Your task to perform on an android device: Open Google Maps and go to "Timeline" Image 0: 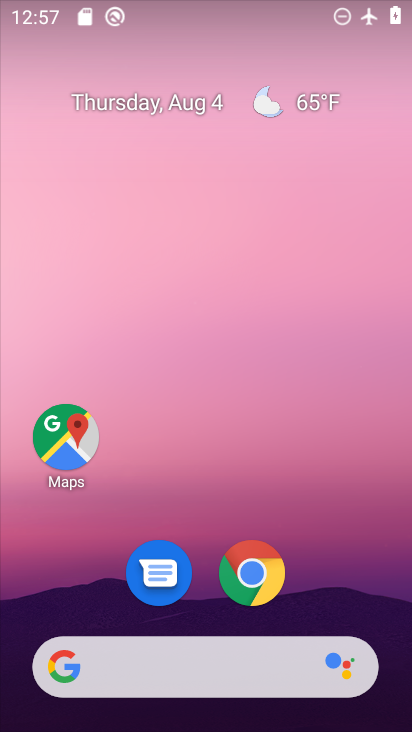
Step 0: click (371, 53)
Your task to perform on an android device: Open Google Maps and go to "Timeline" Image 1: 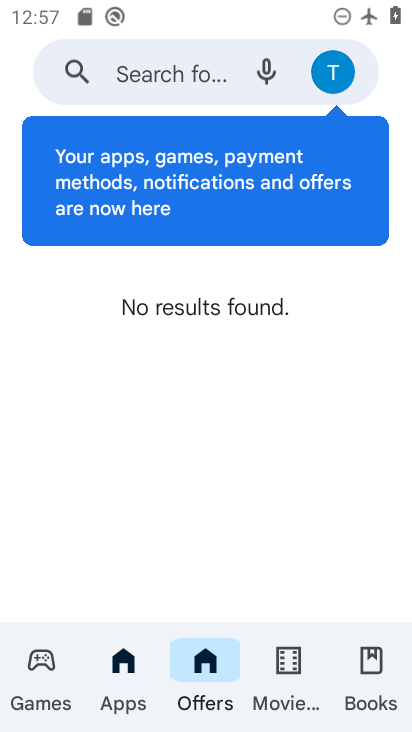
Step 1: press home button
Your task to perform on an android device: Open Google Maps and go to "Timeline" Image 2: 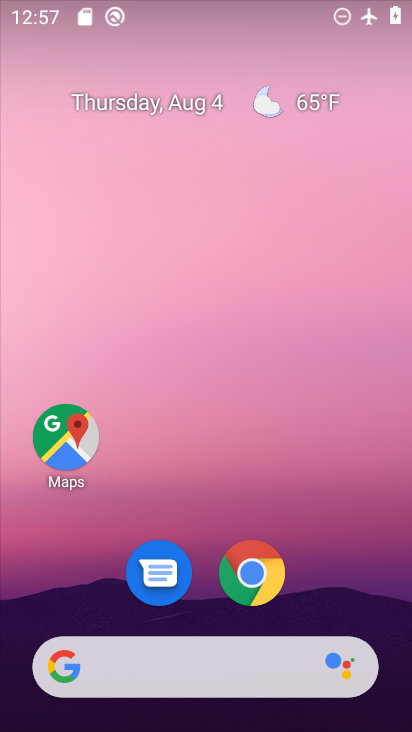
Step 2: drag from (350, 471) to (359, 187)
Your task to perform on an android device: Open Google Maps and go to "Timeline" Image 3: 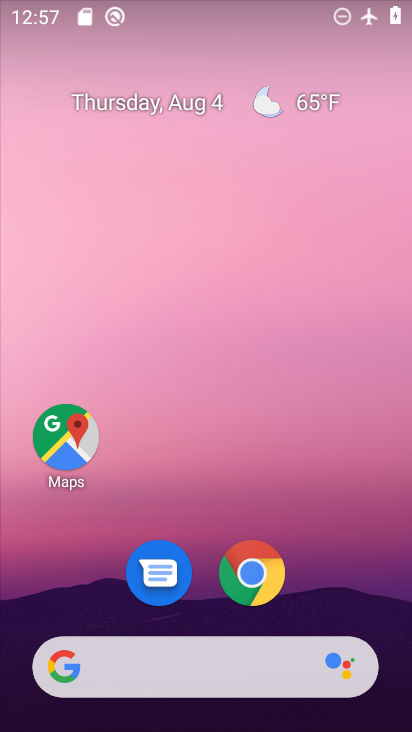
Step 3: drag from (352, 538) to (351, 113)
Your task to perform on an android device: Open Google Maps and go to "Timeline" Image 4: 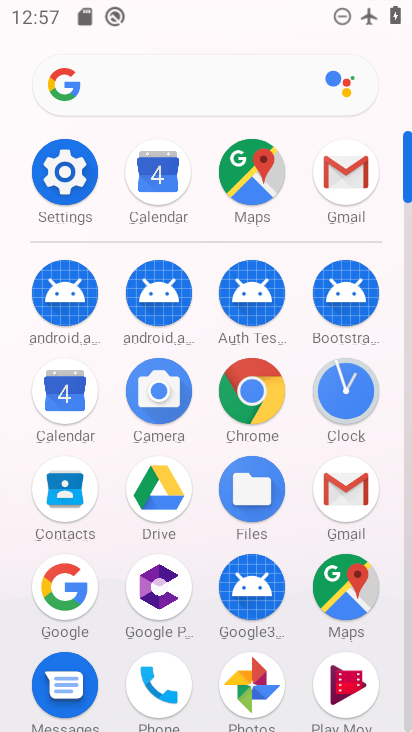
Step 4: click (333, 593)
Your task to perform on an android device: Open Google Maps and go to "Timeline" Image 5: 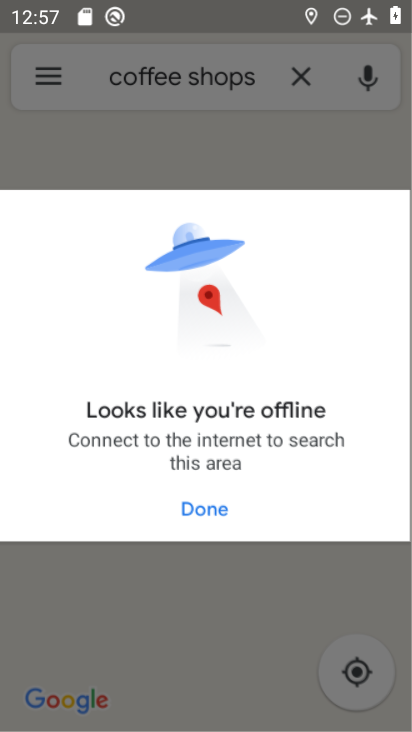
Step 5: click (230, 510)
Your task to perform on an android device: Open Google Maps and go to "Timeline" Image 6: 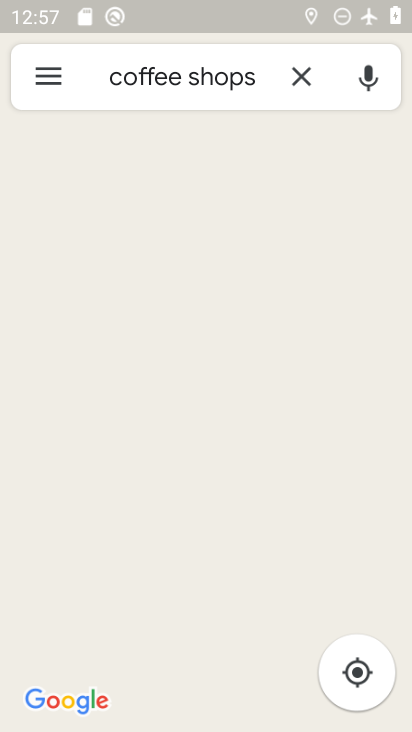
Step 6: click (42, 81)
Your task to perform on an android device: Open Google Maps and go to "Timeline" Image 7: 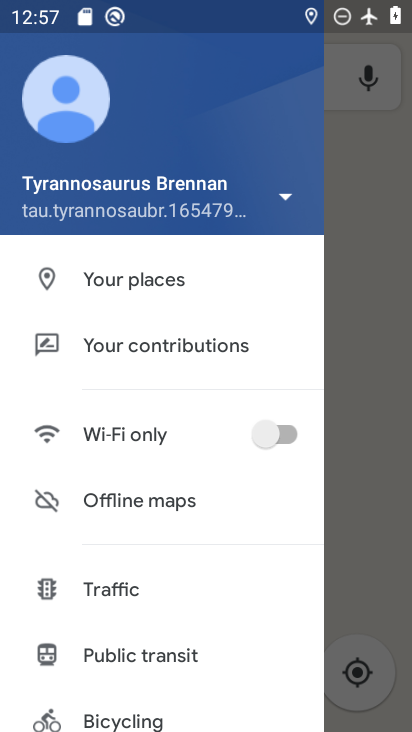
Step 7: task complete